Your task to perform on an android device: set the stopwatch Image 0: 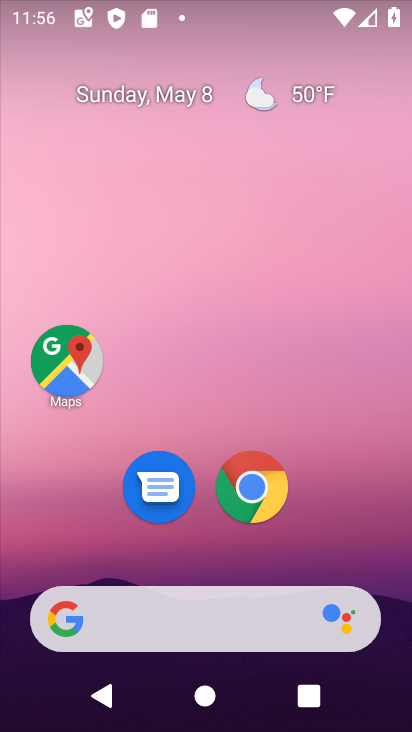
Step 0: drag from (299, 532) to (310, 1)
Your task to perform on an android device: set the stopwatch Image 1: 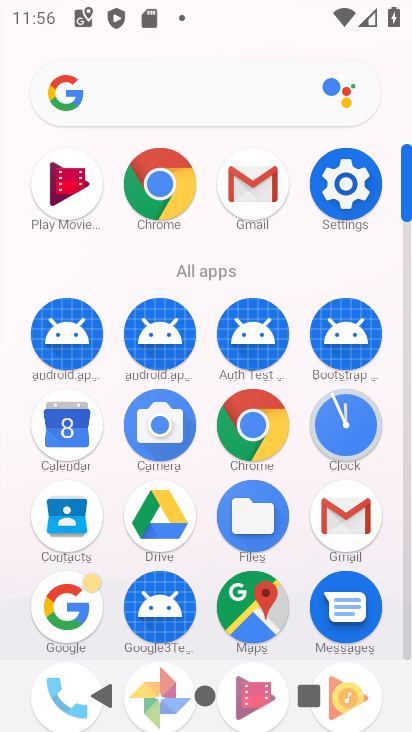
Step 1: click (331, 439)
Your task to perform on an android device: set the stopwatch Image 2: 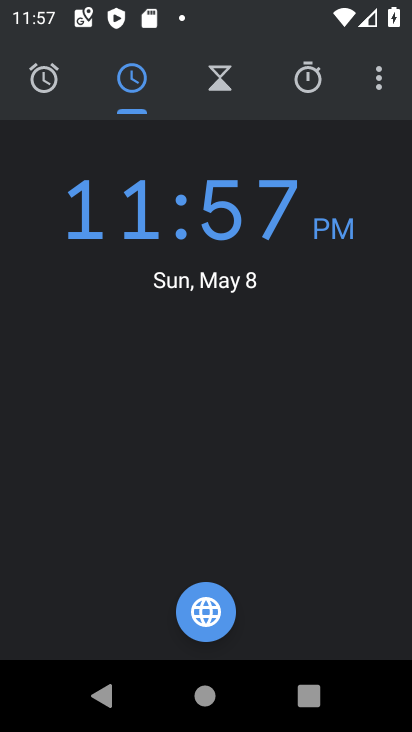
Step 2: click (306, 77)
Your task to perform on an android device: set the stopwatch Image 3: 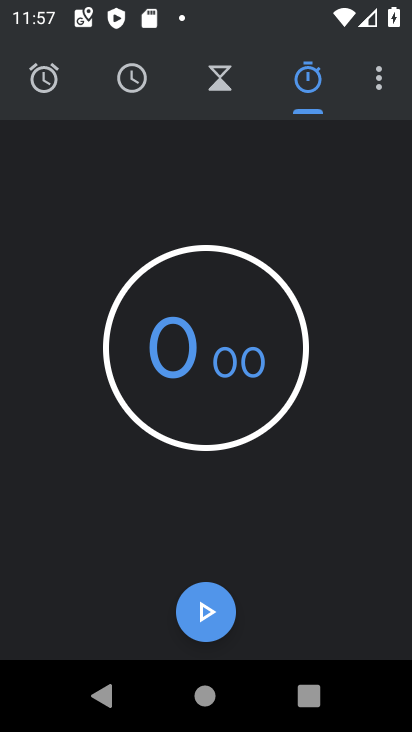
Step 3: click (211, 595)
Your task to perform on an android device: set the stopwatch Image 4: 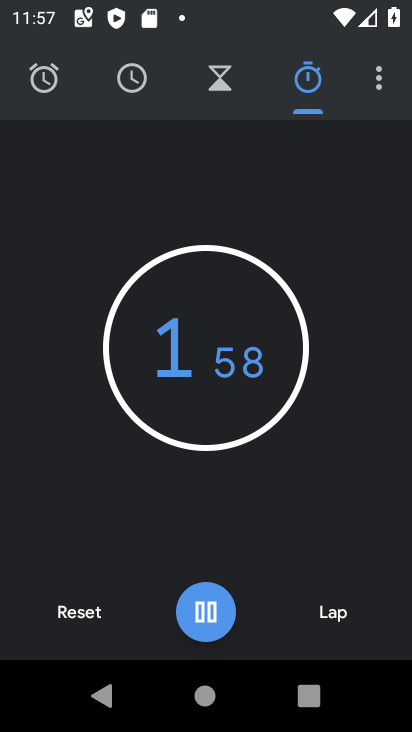
Step 4: task complete